Your task to perform on an android device: toggle javascript in the chrome app Image 0: 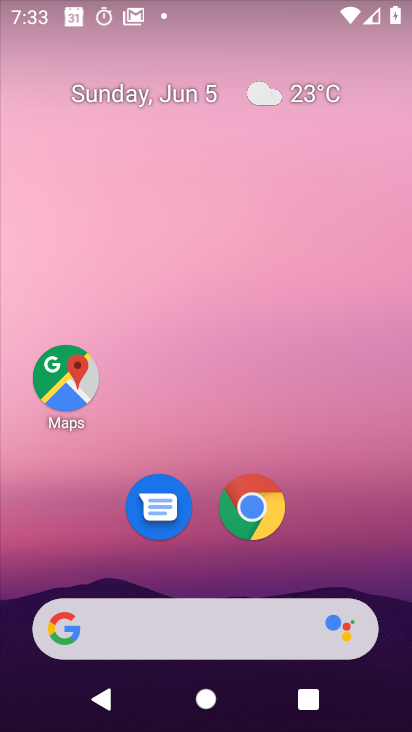
Step 0: drag from (265, 652) to (126, 173)
Your task to perform on an android device: toggle javascript in the chrome app Image 1: 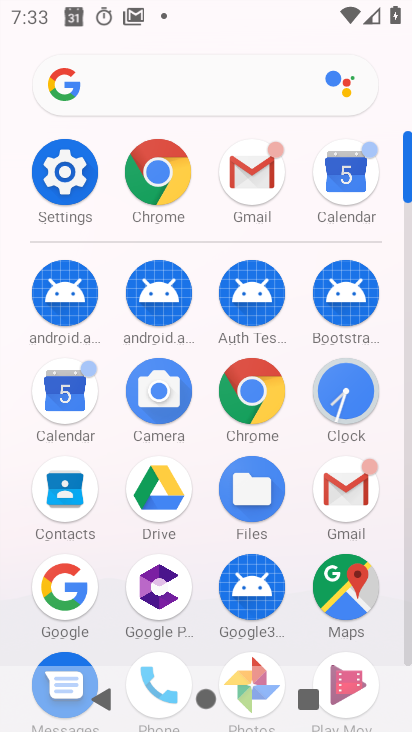
Step 1: click (154, 184)
Your task to perform on an android device: toggle javascript in the chrome app Image 2: 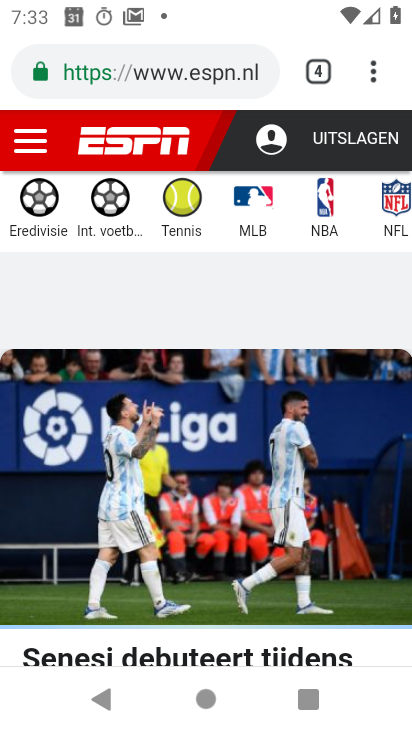
Step 2: click (368, 89)
Your task to perform on an android device: toggle javascript in the chrome app Image 3: 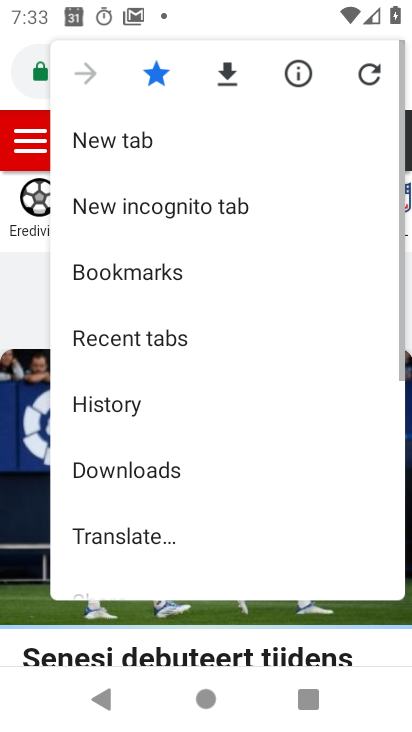
Step 3: drag from (215, 539) to (157, 191)
Your task to perform on an android device: toggle javascript in the chrome app Image 4: 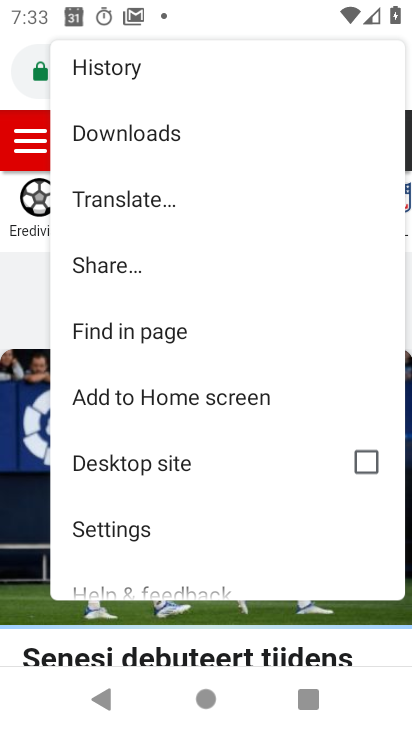
Step 4: click (170, 534)
Your task to perform on an android device: toggle javascript in the chrome app Image 5: 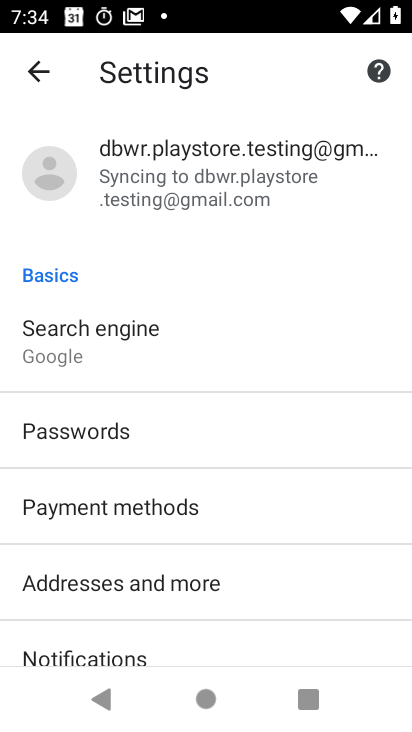
Step 5: drag from (145, 602) to (118, 433)
Your task to perform on an android device: toggle javascript in the chrome app Image 6: 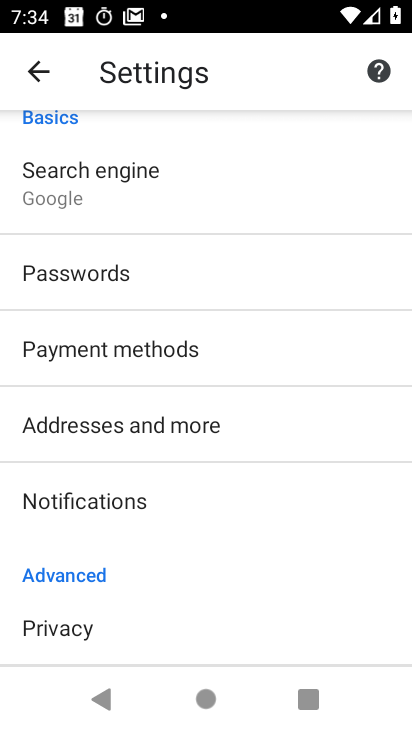
Step 6: drag from (170, 597) to (129, 315)
Your task to perform on an android device: toggle javascript in the chrome app Image 7: 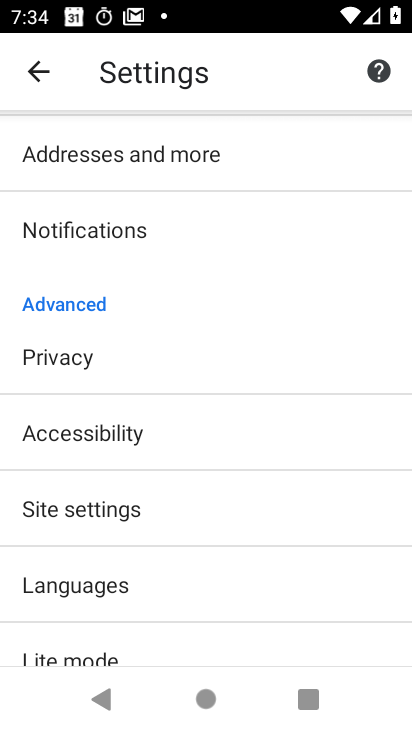
Step 7: click (128, 537)
Your task to perform on an android device: toggle javascript in the chrome app Image 8: 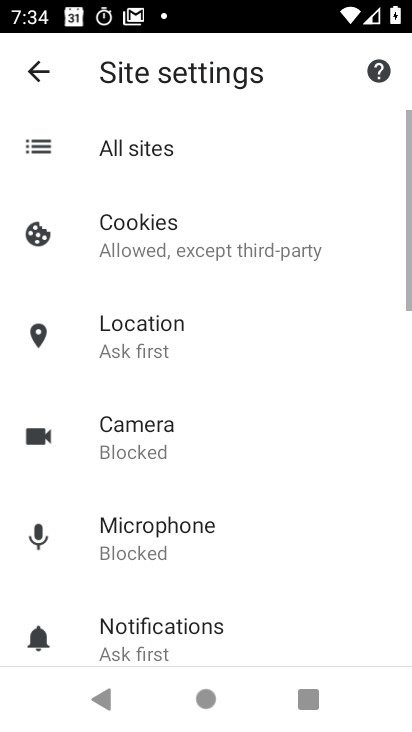
Step 8: drag from (188, 611) to (95, 200)
Your task to perform on an android device: toggle javascript in the chrome app Image 9: 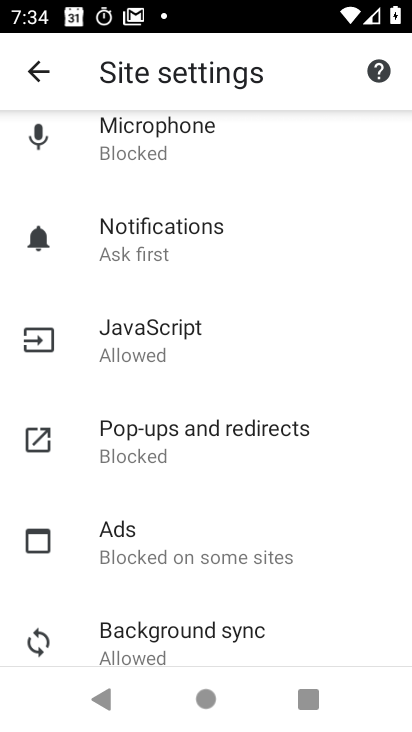
Step 9: click (153, 356)
Your task to perform on an android device: toggle javascript in the chrome app Image 10: 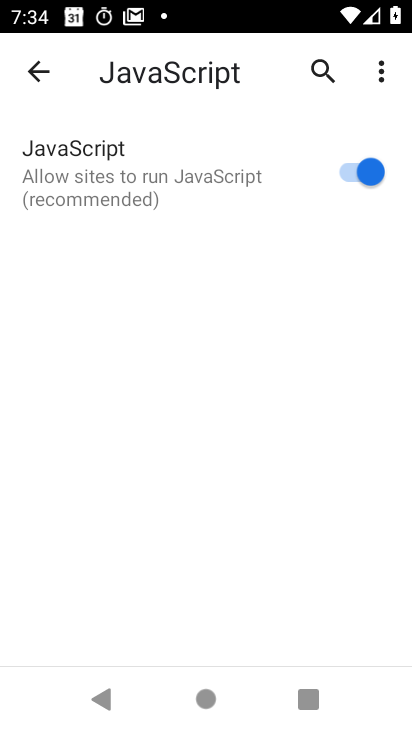
Step 10: task complete